Your task to perform on an android device: toggle pop-ups in chrome Image 0: 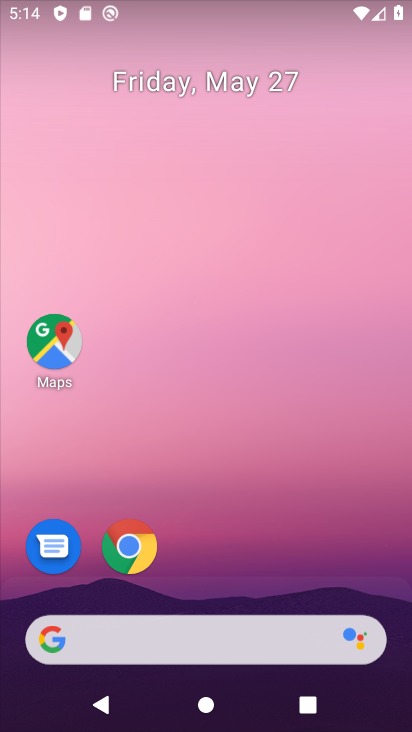
Step 0: click (143, 541)
Your task to perform on an android device: toggle pop-ups in chrome Image 1: 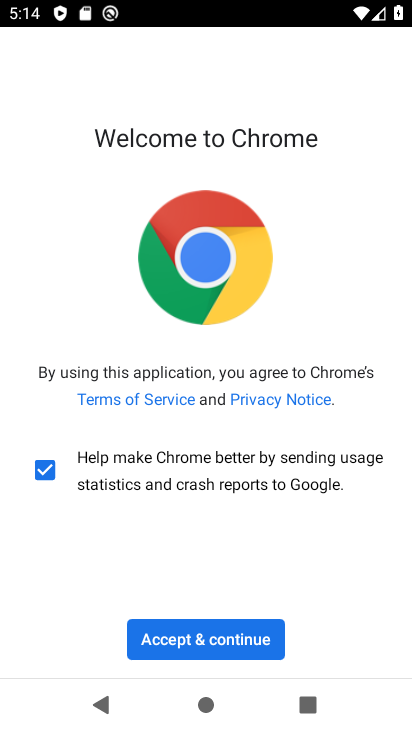
Step 1: click (225, 627)
Your task to perform on an android device: toggle pop-ups in chrome Image 2: 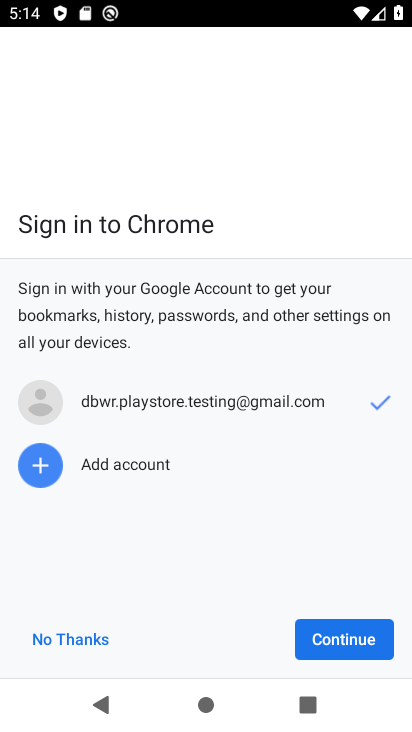
Step 2: click (301, 630)
Your task to perform on an android device: toggle pop-ups in chrome Image 3: 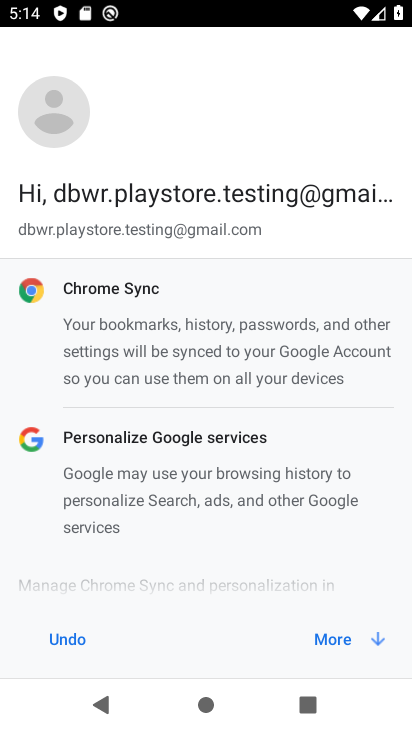
Step 3: click (324, 638)
Your task to perform on an android device: toggle pop-ups in chrome Image 4: 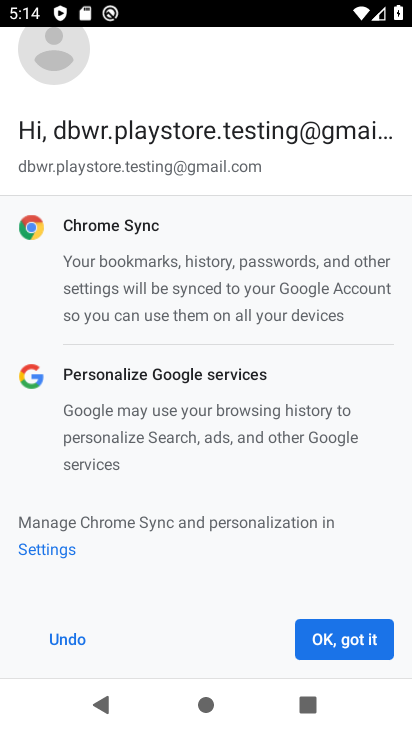
Step 4: click (324, 638)
Your task to perform on an android device: toggle pop-ups in chrome Image 5: 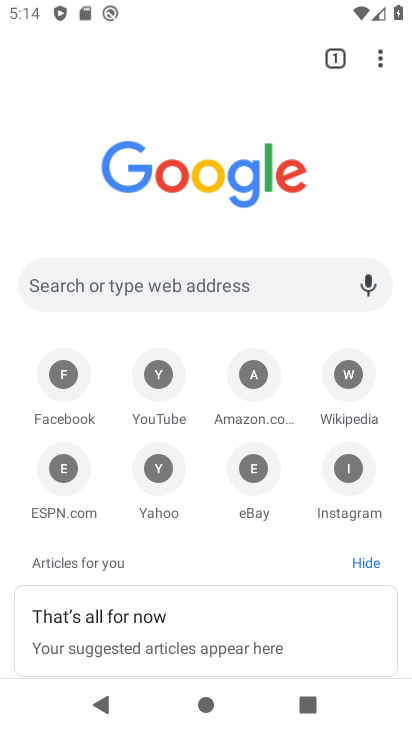
Step 5: click (387, 45)
Your task to perform on an android device: toggle pop-ups in chrome Image 6: 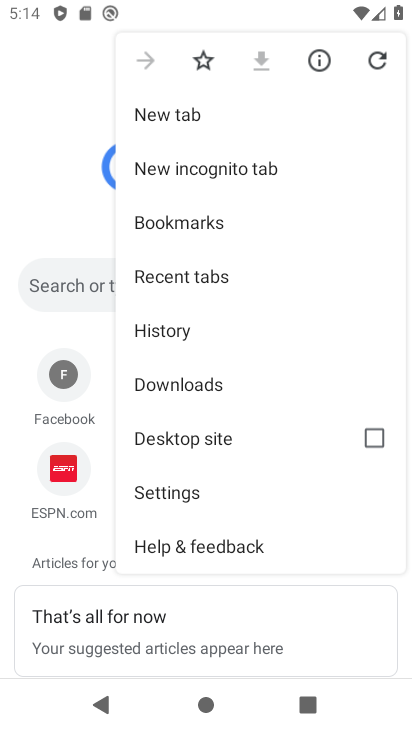
Step 6: click (147, 484)
Your task to perform on an android device: toggle pop-ups in chrome Image 7: 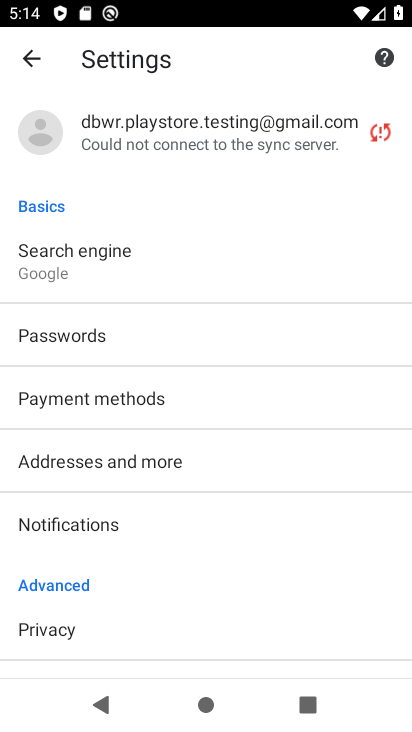
Step 7: drag from (178, 622) to (208, 309)
Your task to perform on an android device: toggle pop-ups in chrome Image 8: 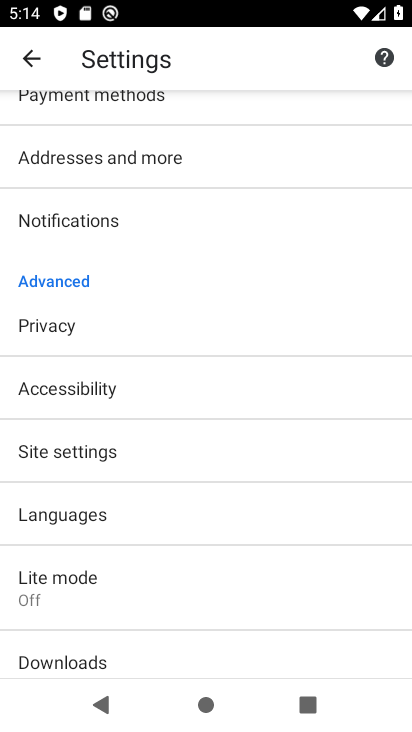
Step 8: click (106, 461)
Your task to perform on an android device: toggle pop-ups in chrome Image 9: 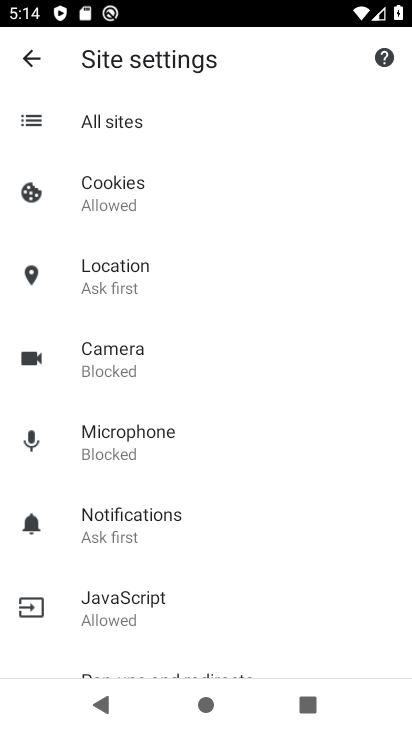
Step 9: drag from (226, 578) to (213, 202)
Your task to perform on an android device: toggle pop-ups in chrome Image 10: 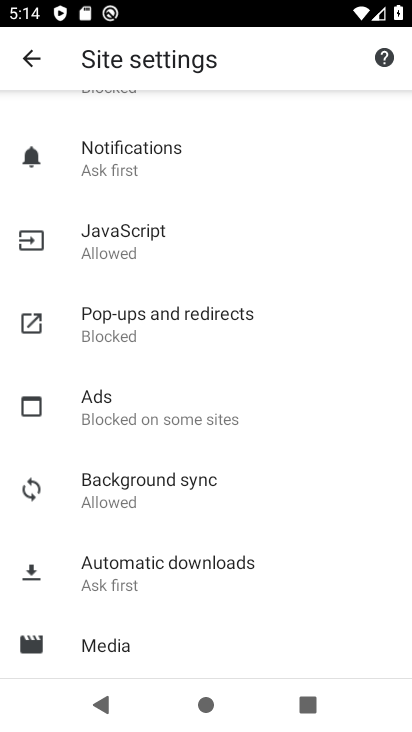
Step 10: click (158, 338)
Your task to perform on an android device: toggle pop-ups in chrome Image 11: 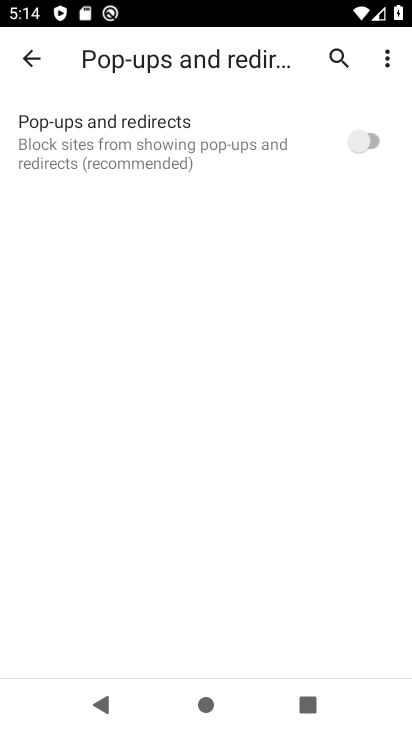
Step 11: click (375, 141)
Your task to perform on an android device: toggle pop-ups in chrome Image 12: 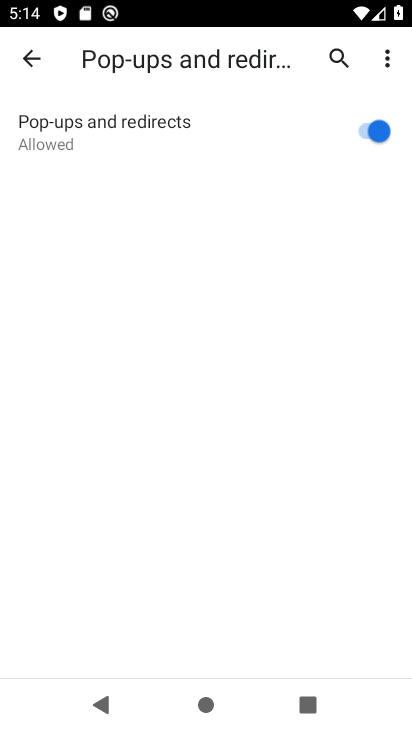
Step 12: task complete